Your task to perform on an android device: open a bookmark in the chrome app Image 0: 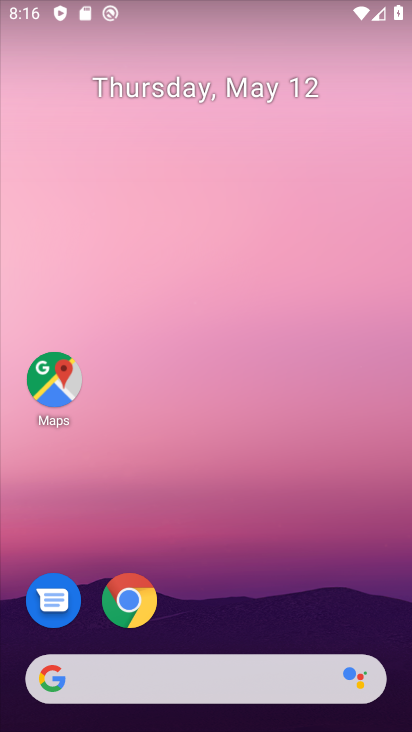
Step 0: drag from (239, 531) to (259, 49)
Your task to perform on an android device: open a bookmark in the chrome app Image 1: 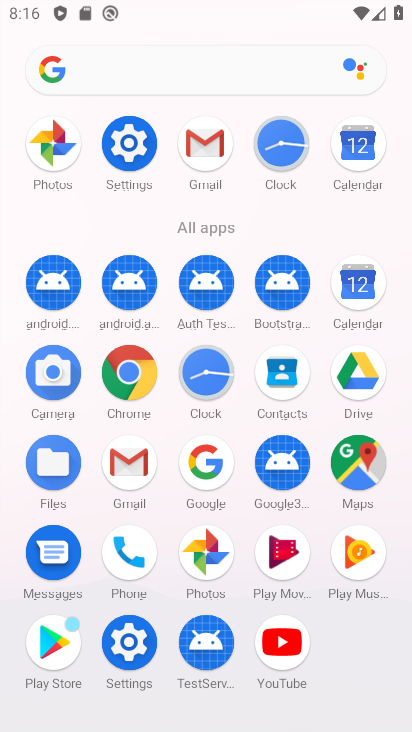
Step 1: click (144, 390)
Your task to perform on an android device: open a bookmark in the chrome app Image 2: 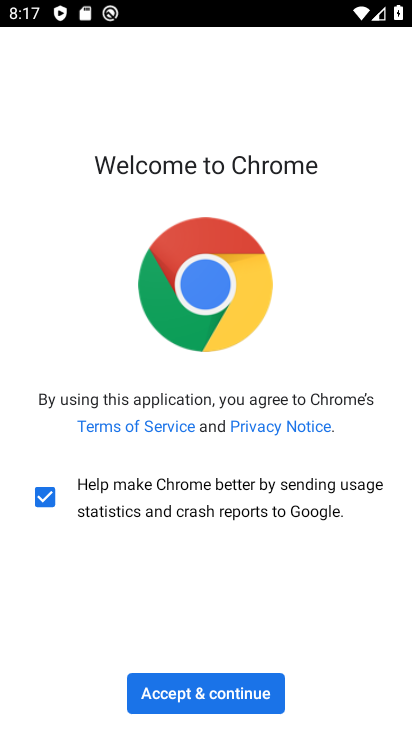
Step 2: click (173, 687)
Your task to perform on an android device: open a bookmark in the chrome app Image 3: 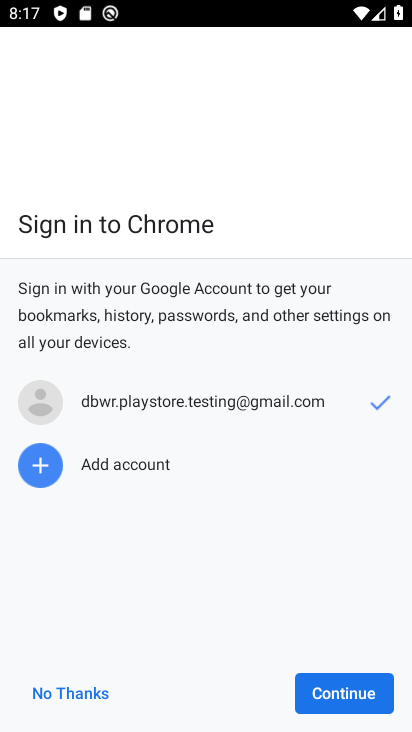
Step 3: click (77, 700)
Your task to perform on an android device: open a bookmark in the chrome app Image 4: 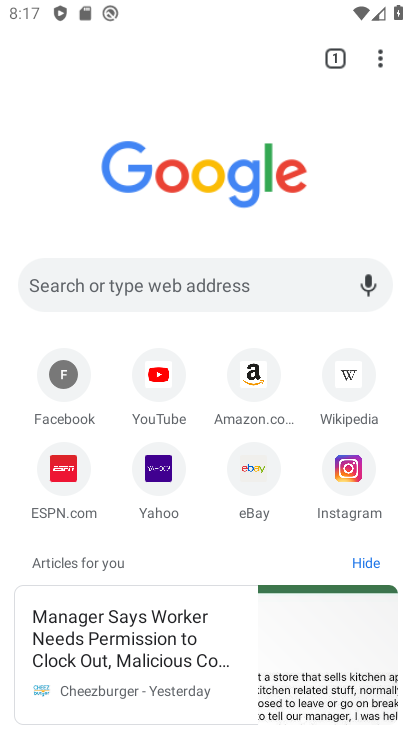
Step 4: drag from (377, 60) to (183, 230)
Your task to perform on an android device: open a bookmark in the chrome app Image 5: 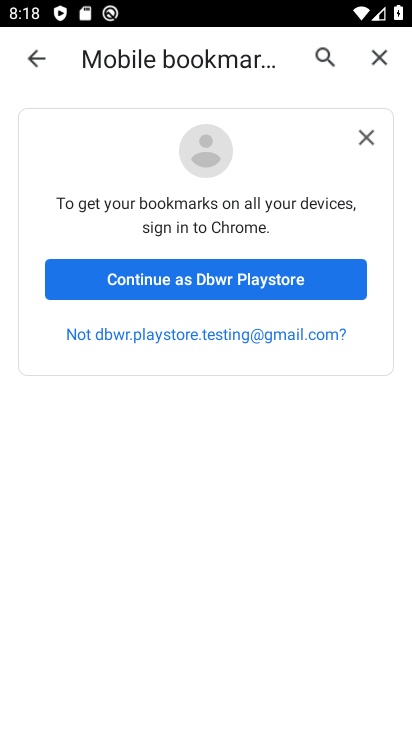
Step 5: click (148, 293)
Your task to perform on an android device: open a bookmark in the chrome app Image 6: 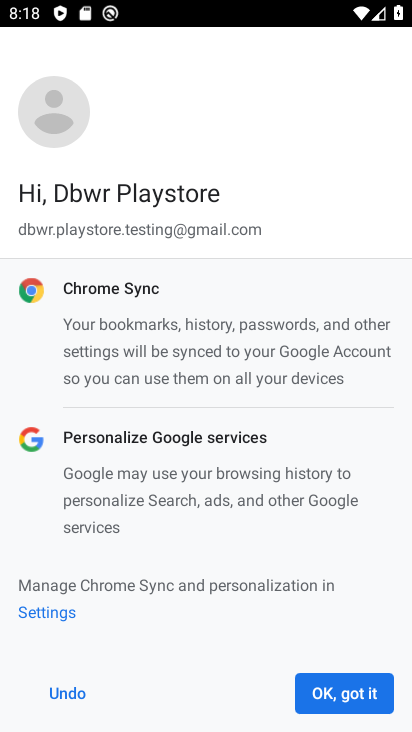
Step 6: click (367, 695)
Your task to perform on an android device: open a bookmark in the chrome app Image 7: 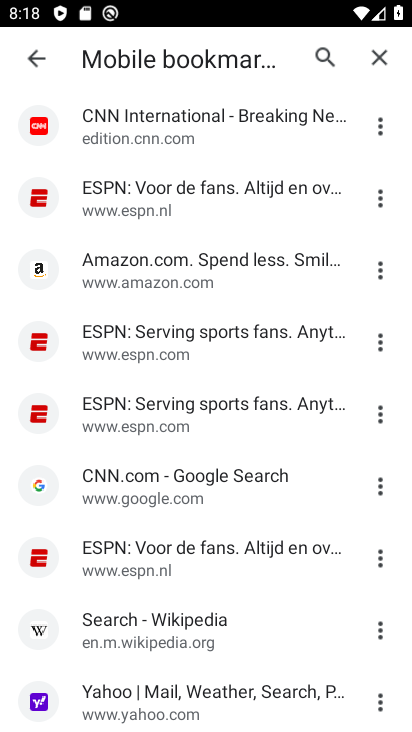
Step 7: task complete